Your task to perform on an android device: find which apps use the phone's location Image 0: 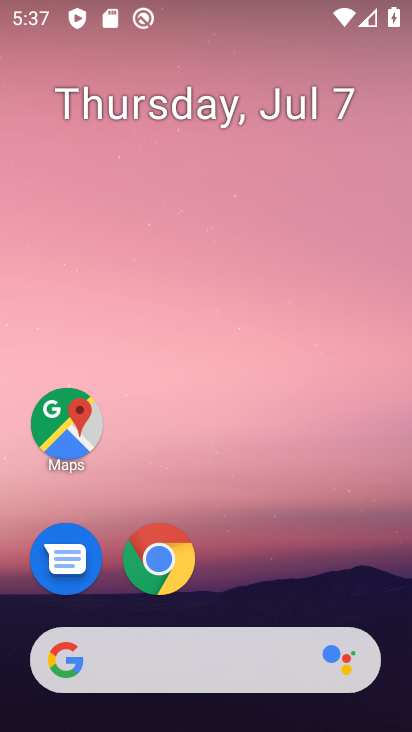
Step 0: drag from (199, 593) to (335, 29)
Your task to perform on an android device: find which apps use the phone's location Image 1: 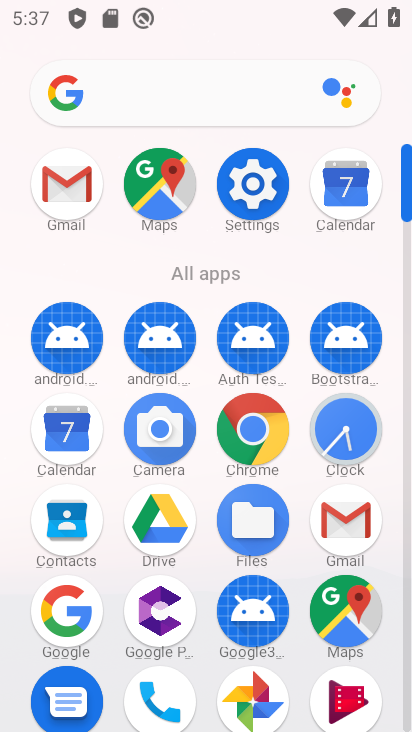
Step 1: click (260, 213)
Your task to perform on an android device: find which apps use the phone's location Image 2: 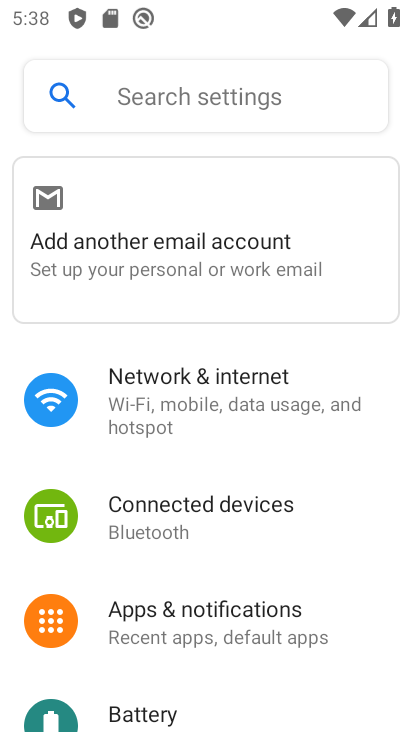
Step 2: drag from (213, 697) to (252, 518)
Your task to perform on an android device: find which apps use the phone's location Image 3: 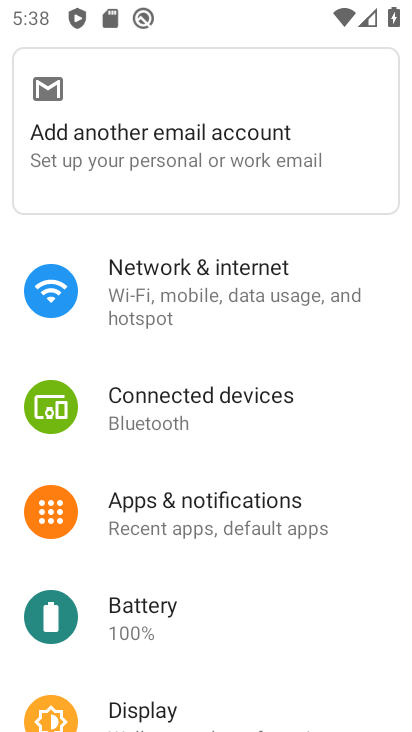
Step 3: drag from (231, 593) to (235, 208)
Your task to perform on an android device: find which apps use the phone's location Image 4: 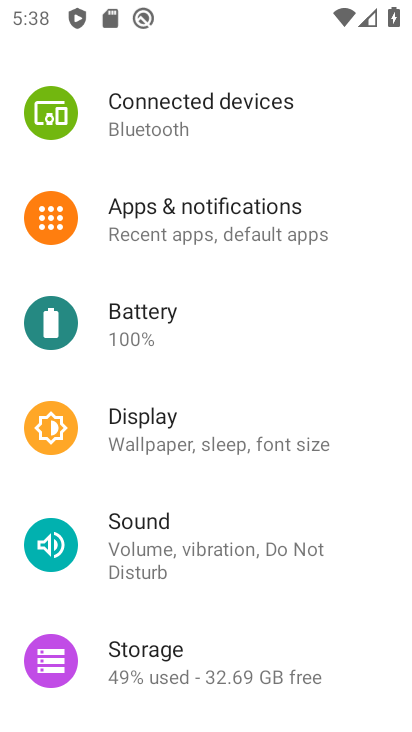
Step 4: drag from (219, 537) to (196, 23)
Your task to perform on an android device: find which apps use the phone's location Image 5: 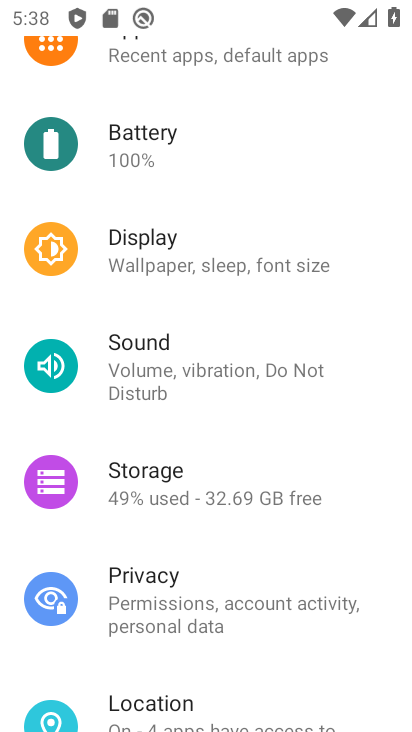
Step 5: click (202, 699)
Your task to perform on an android device: find which apps use the phone's location Image 6: 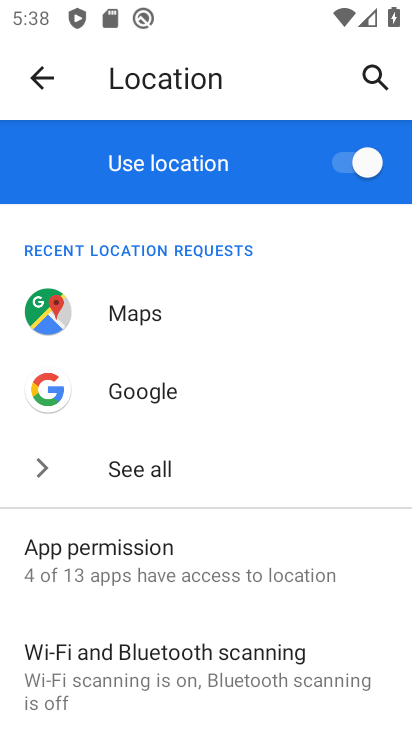
Step 6: click (153, 562)
Your task to perform on an android device: find which apps use the phone's location Image 7: 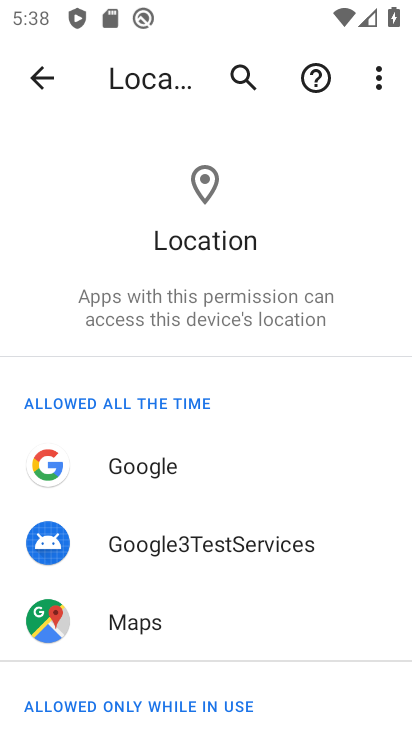
Step 7: task complete